Your task to perform on an android device: toggle improve location accuracy Image 0: 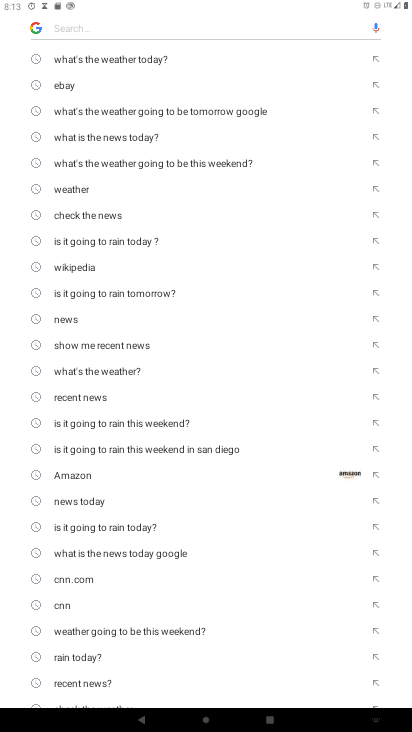
Step 0: press home button
Your task to perform on an android device: toggle improve location accuracy Image 1: 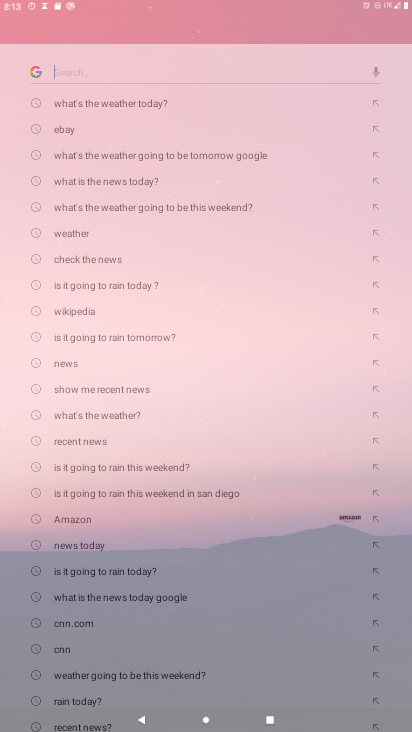
Step 1: drag from (318, 429) to (0, 5)
Your task to perform on an android device: toggle improve location accuracy Image 2: 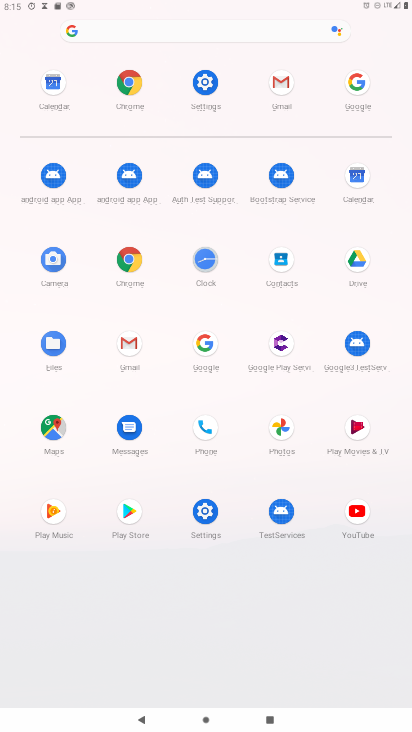
Step 2: click (193, 523)
Your task to perform on an android device: toggle improve location accuracy Image 3: 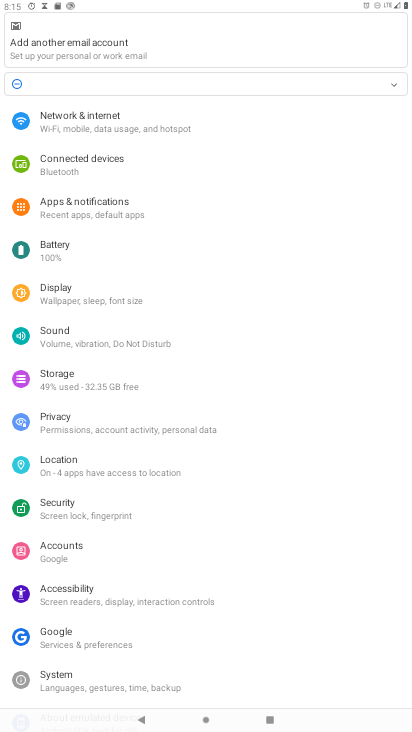
Step 3: click (92, 467)
Your task to perform on an android device: toggle improve location accuracy Image 4: 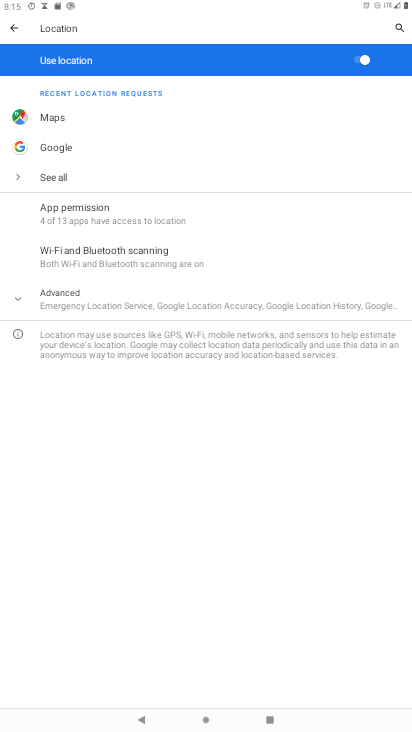
Step 4: click (91, 296)
Your task to perform on an android device: toggle improve location accuracy Image 5: 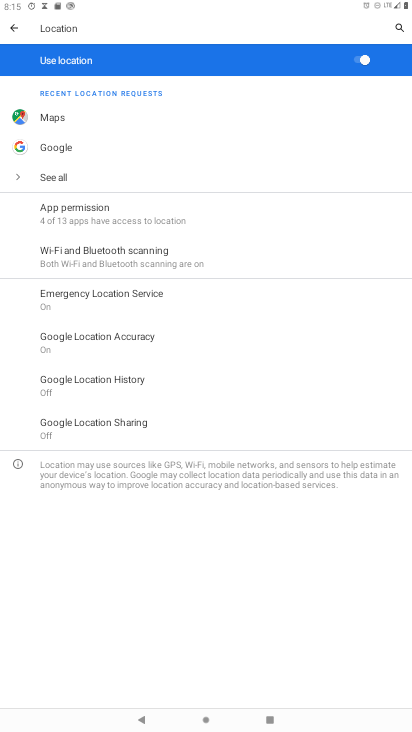
Step 5: click (97, 349)
Your task to perform on an android device: toggle improve location accuracy Image 6: 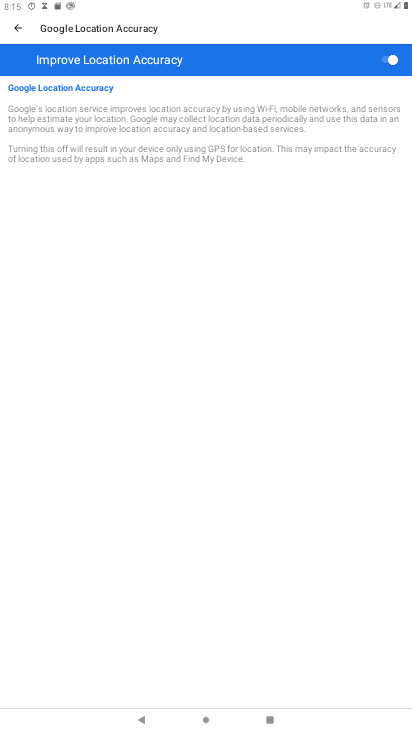
Step 6: click (391, 60)
Your task to perform on an android device: toggle improve location accuracy Image 7: 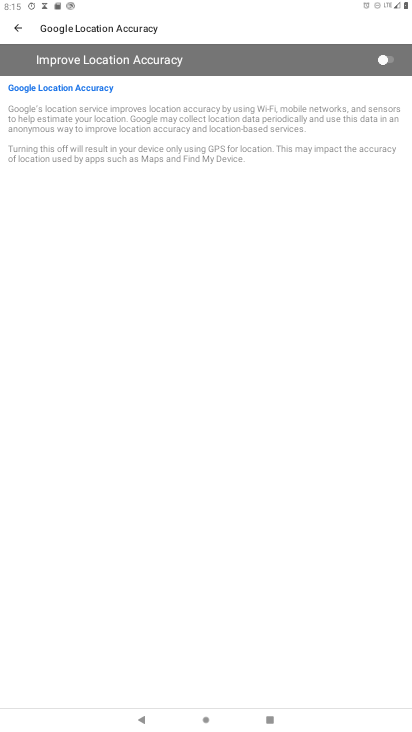
Step 7: task complete